Your task to perform on an android device: turn off location Image 0: 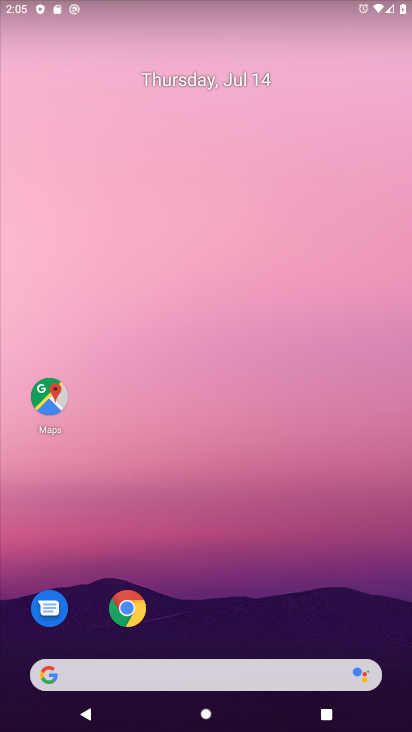
Step 0: drag from (240, 726) to (239, 144)
Your task to perform on an android device: turn off location Image 1: 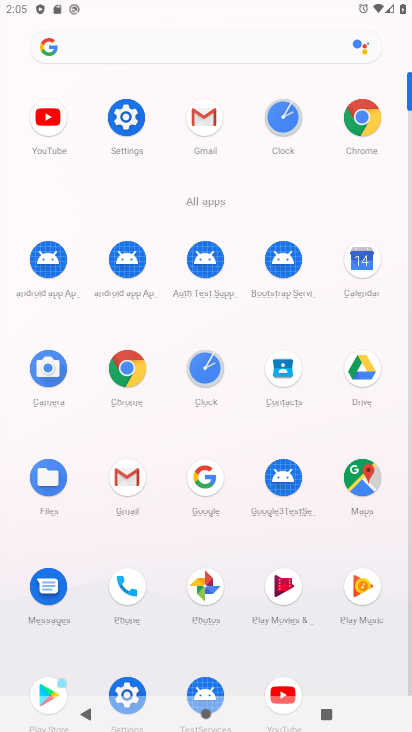
Step 1: click (124, 115)
Your task to perform on an android device: turn off location Image 2: 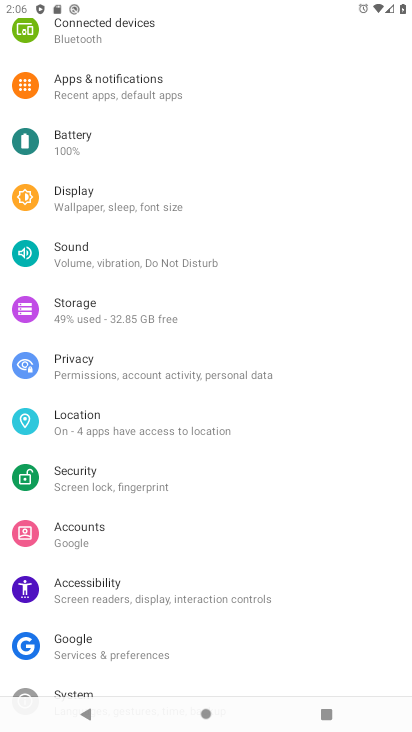
Step 2: click (77, 418)
Your task to perform on an android device: turn off location Image 3: 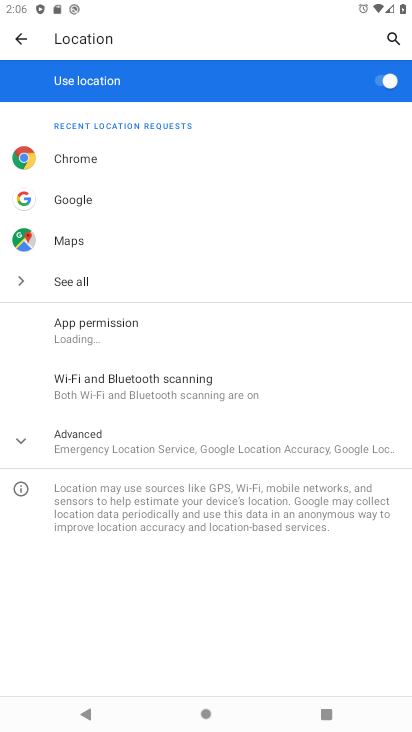
Step 3: click (382, 78)
Your task to perform on an android device: turn off location Image 4: 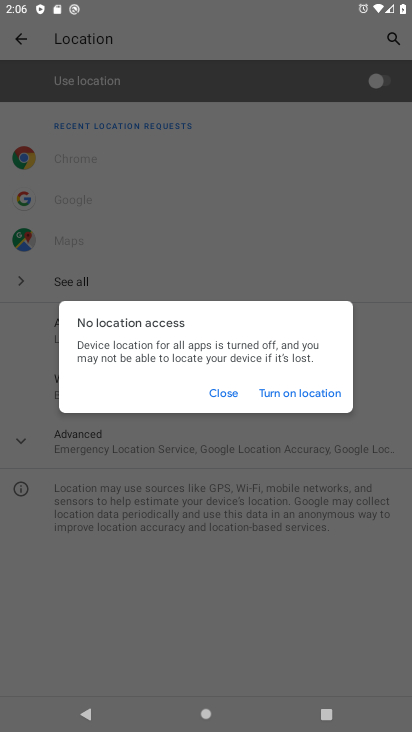
Step 4: click (217, 392)
Your task to perform on an android device: turn off location Image 5: 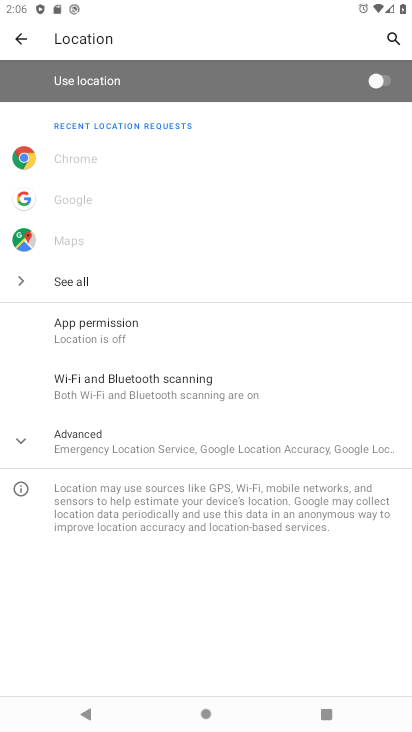
Step 5: task complete